Your task to perform on an android device: Open Google Chrome and open the bookmarks view Image 0: 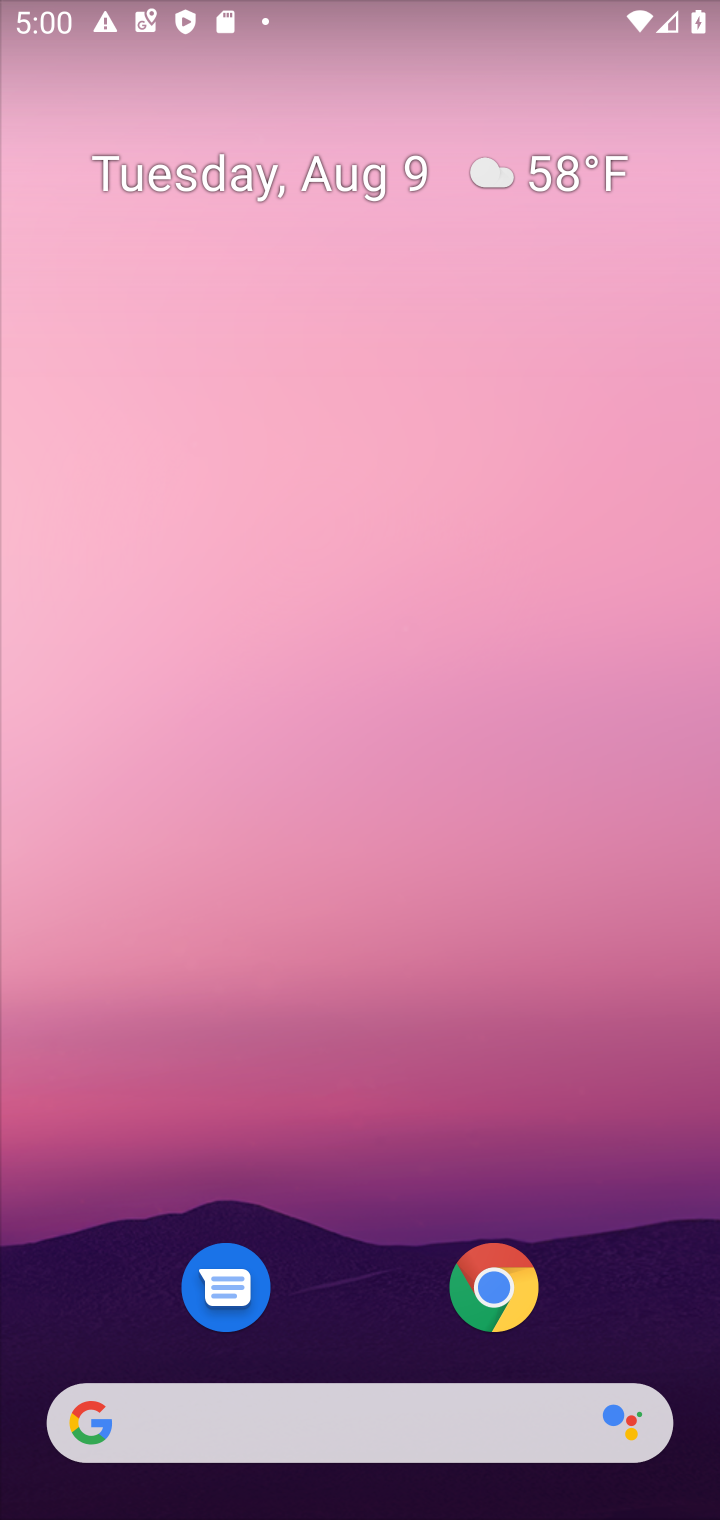
Step 0: click (483, 1292)
Your task to perform on an android device: Open Google Chrome and open the bookmarks view Image 1: 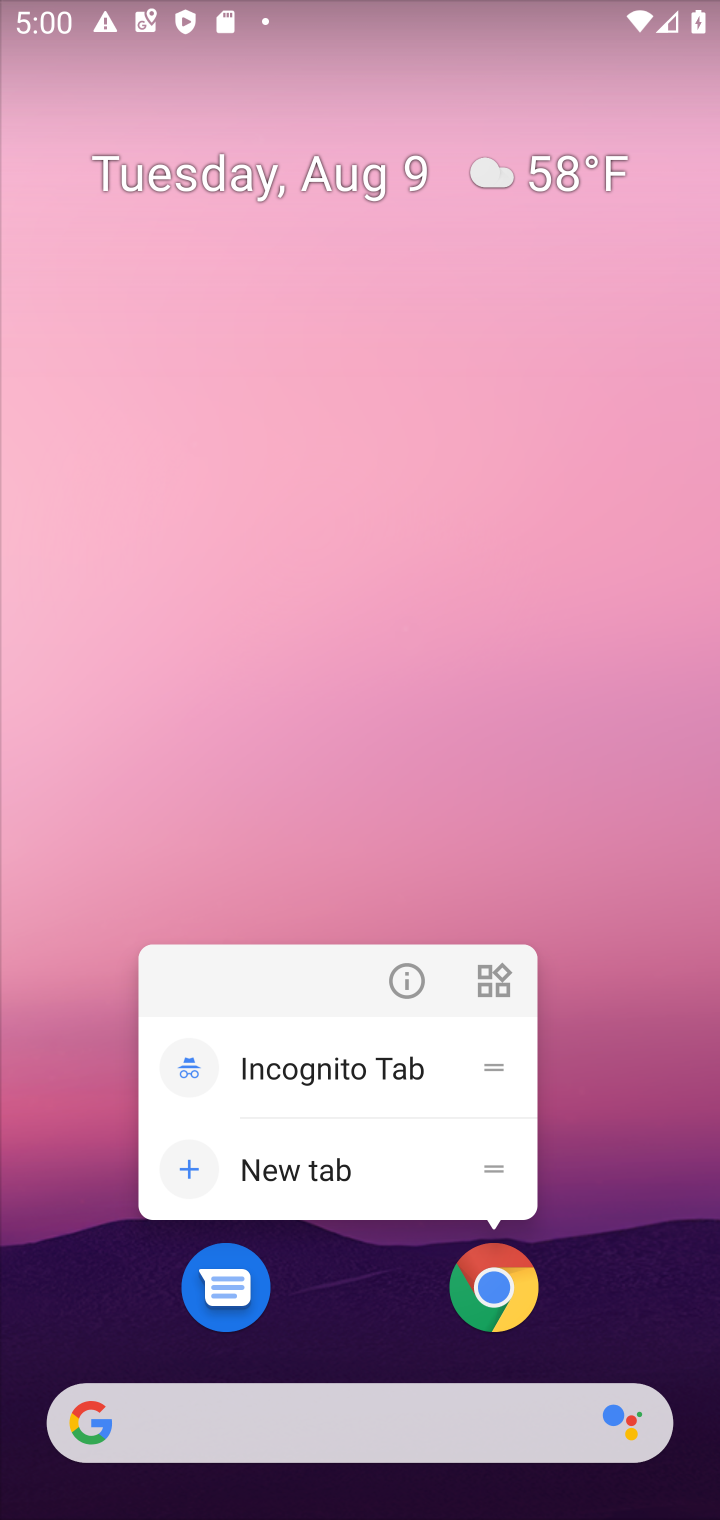
Step 1: click (483, 1292)
Your task to perform on an android device: Open Google Chrome and open the bookmarks view Image 2: 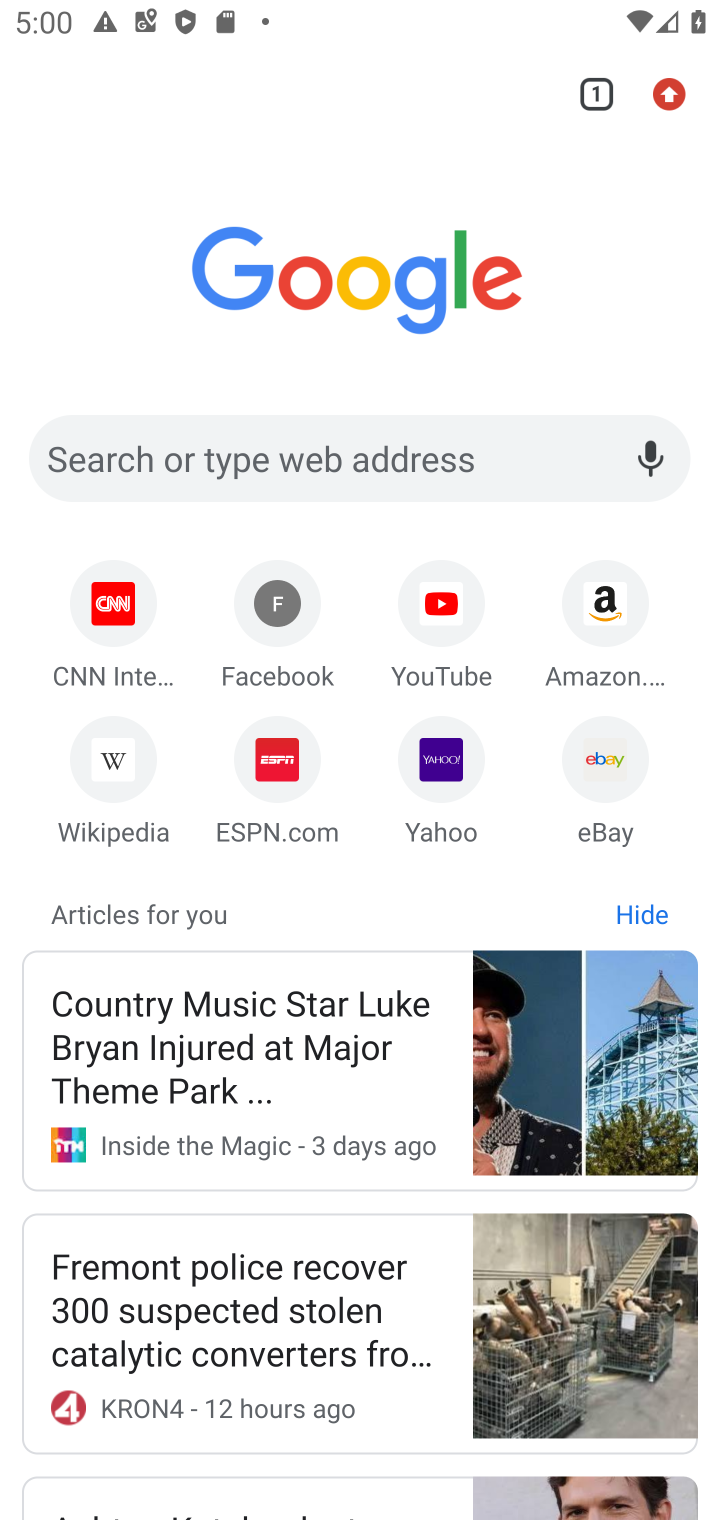
Step 2: click (694, 102)
Your task to perform on an android device: Open Google Chrome and open the bookmarks view Image 3: 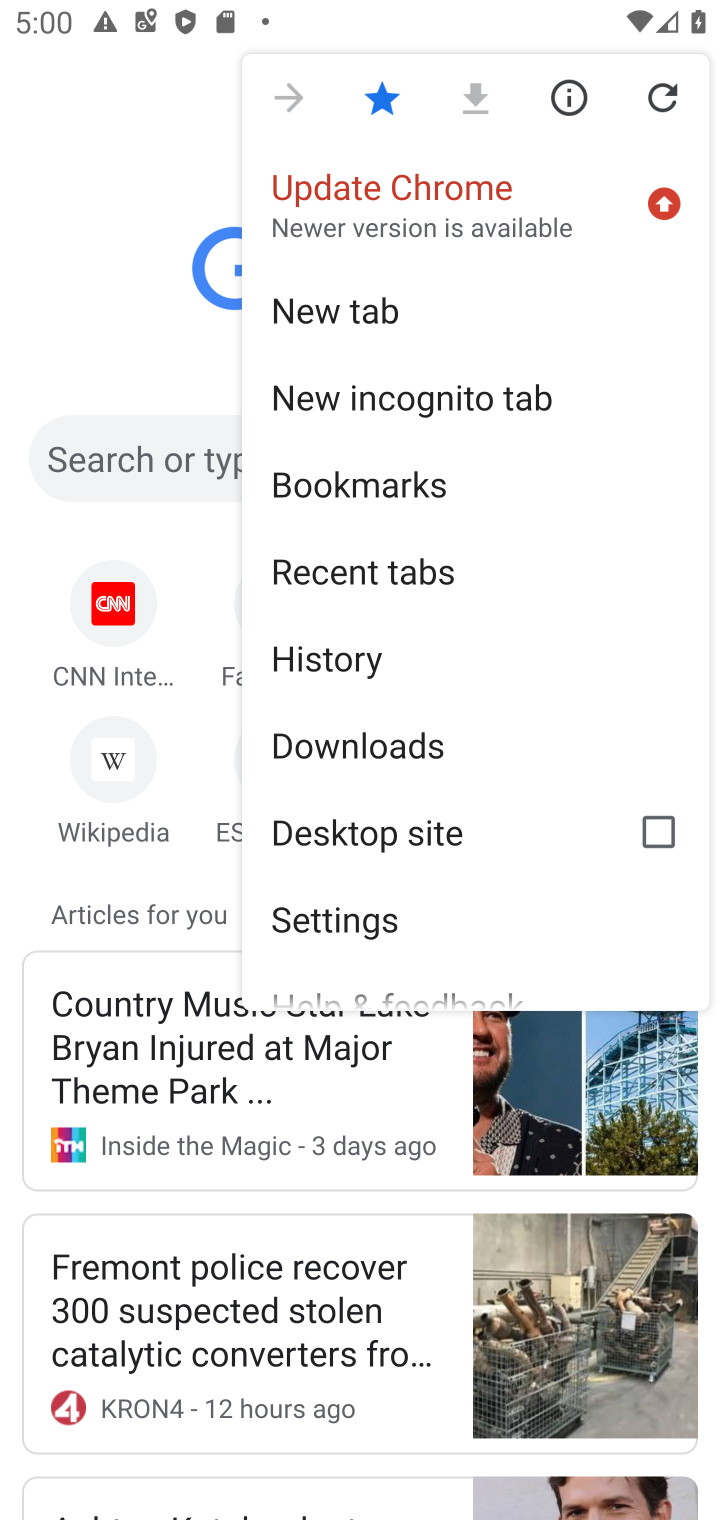
Step 3: click (367, 484)
Your task to perform on an android device: Open Google Chrome and open the bookmarks view Image 4: 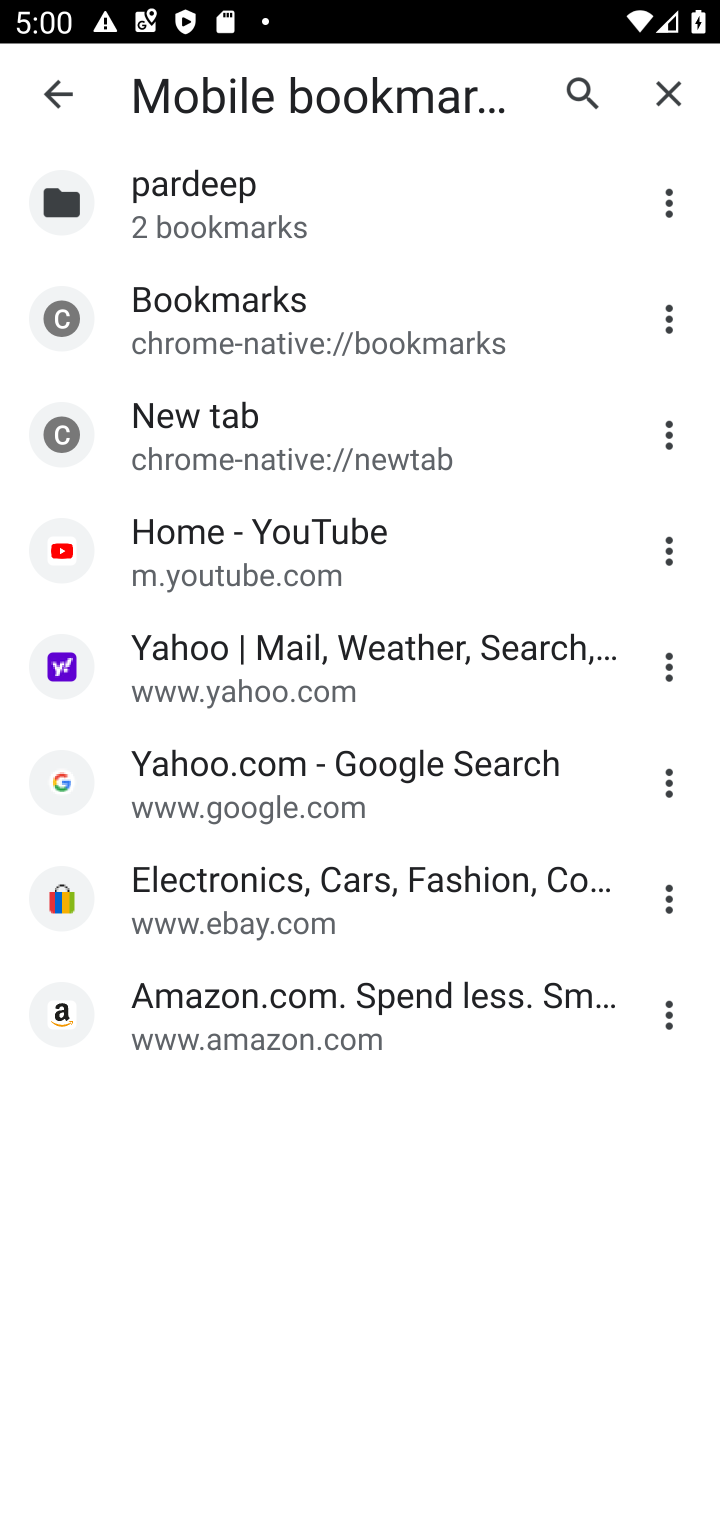
Step 4: task complete